Your task to perform on an android device: clear history in the chrome app Image 0: 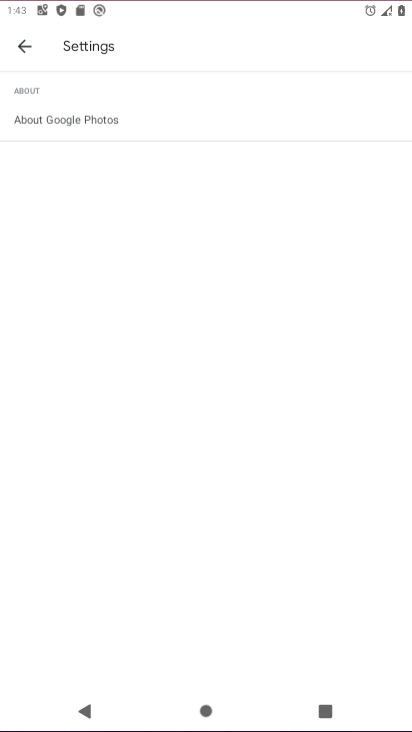
Step 0: drag from (246, 544) to (268, 323)
Your task to perform on an android device: clear history in the chrome app Image 1: 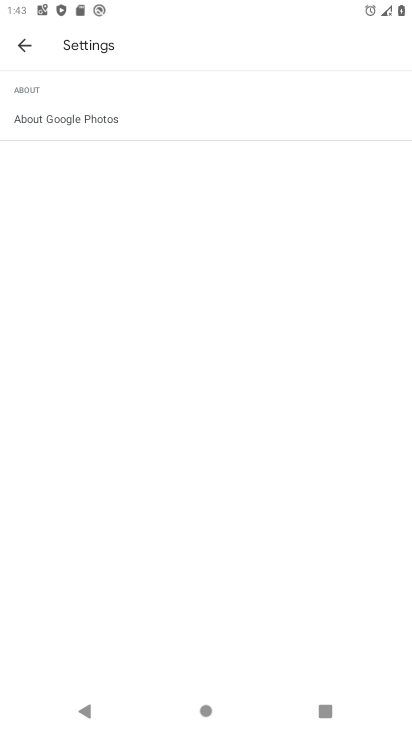
Step 1: press home button
Your task to perform on an android device: clear history in the chrome app Image 2: 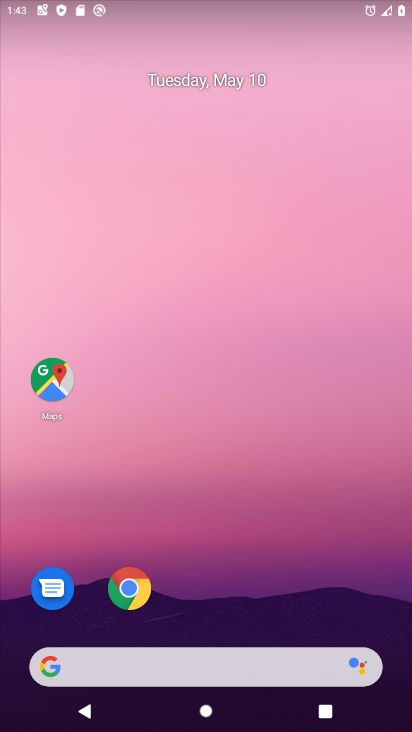
Step 2: drag from (189, 583) to (217, 313)
Your task to perform on an android device: clear history in the chrome app Image 3: 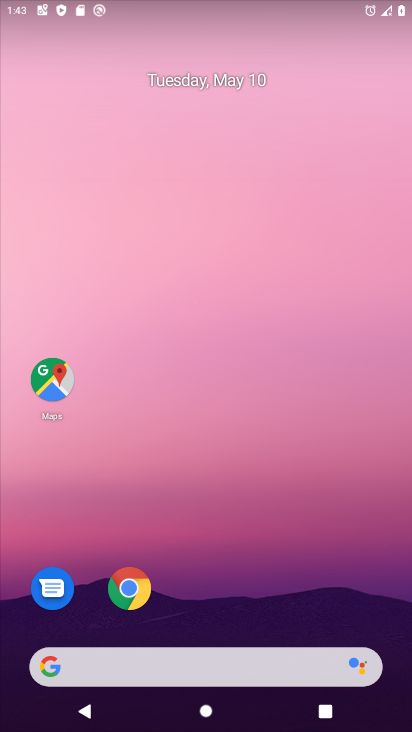
Step 3: drag from (266, 587) to (197, 248)
Your task to perform on an android device: clear history in the chrome app Image 4: 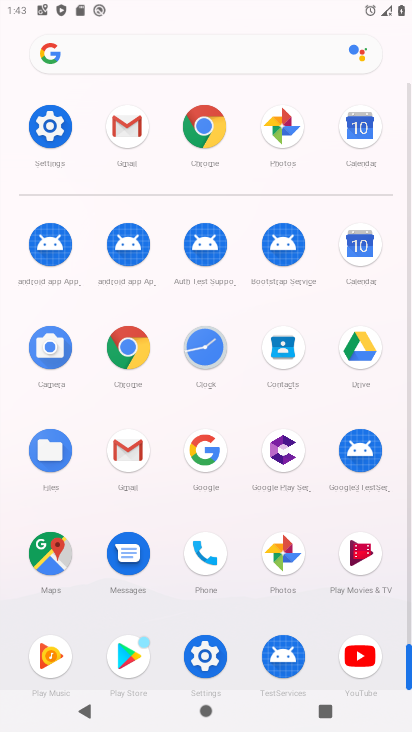
Step 4: click (213, 128)
Your task to perform on an android device: clear history in the chrome app Image 5: 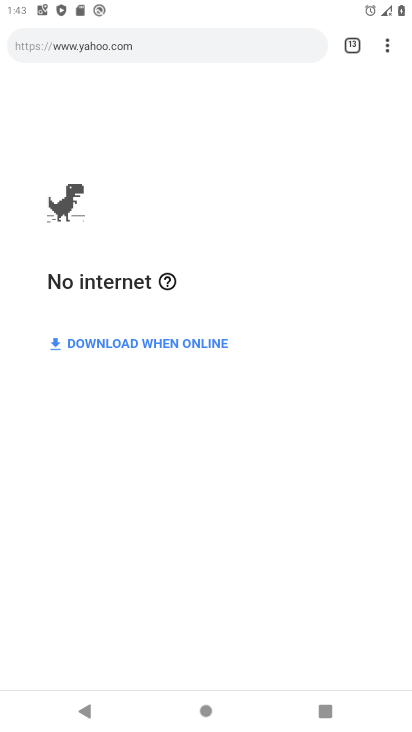
Step 5: click (380, 40)
Your task to perform on an android device: clear history in the chrome app Image 6: 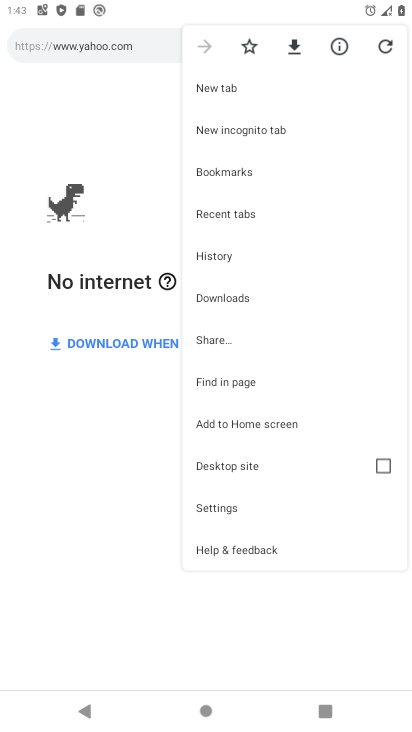
Step 6: click (239, 508)
Your task to perform on an android device: clear history in the chrome app Image 7: 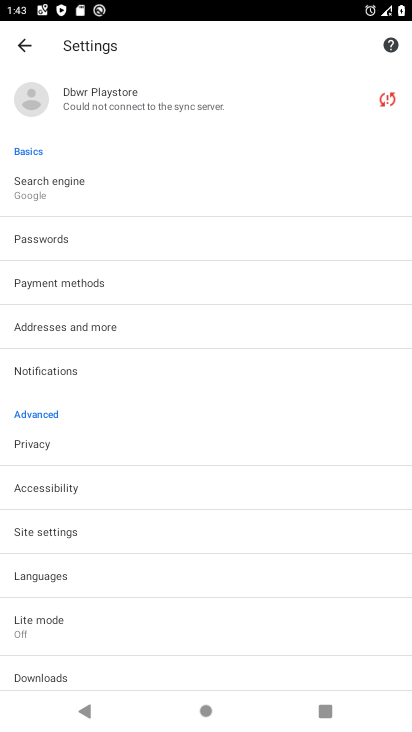
Step 7: click (28, 34)
Your task to perform on an android device: clear history in the chrome app Image 8: 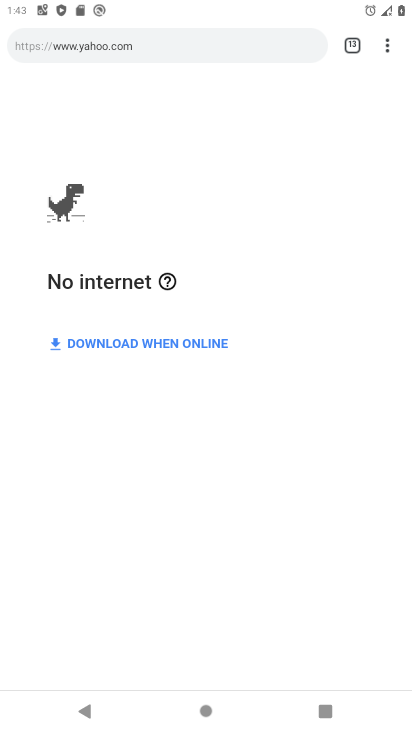
Step 8: click (28, 34)
Your task to perform on an android device: clear history in the chrome app Image 9: 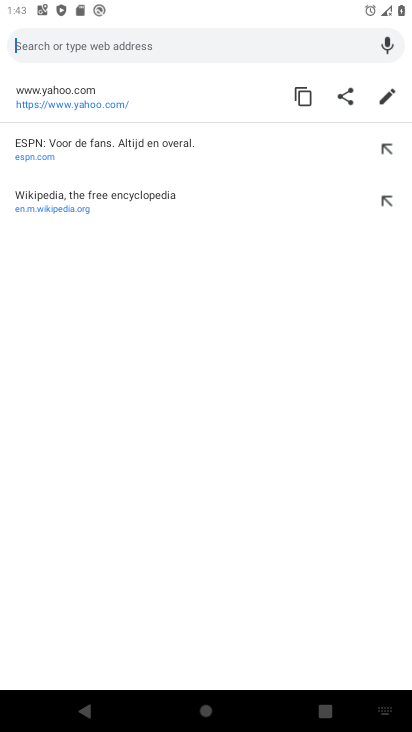
Step 9: press home button
Your task to perform on an android device: clear history in the chrome app Image 10: 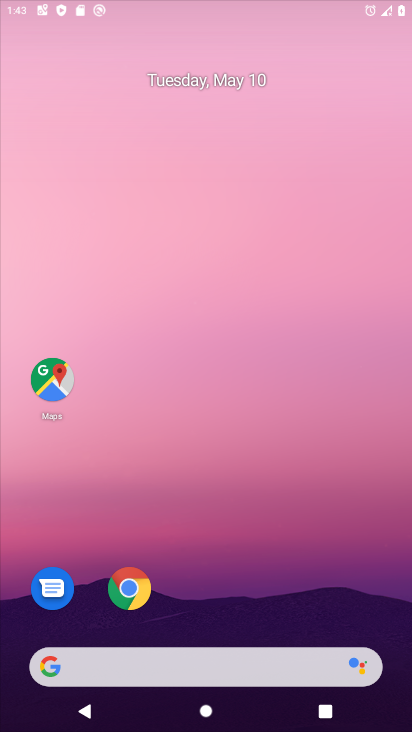
Step 10: drag from (240, 640) to (280, 344)
Your task to perform on an android device: clear history in the chrome app Image 11: 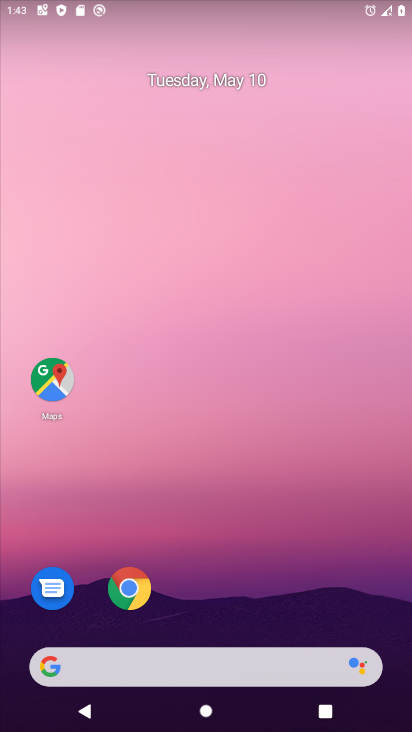
Step 11: click (129, 590)
Your task to perform on an android device: clear history in the chrome app Image 12: 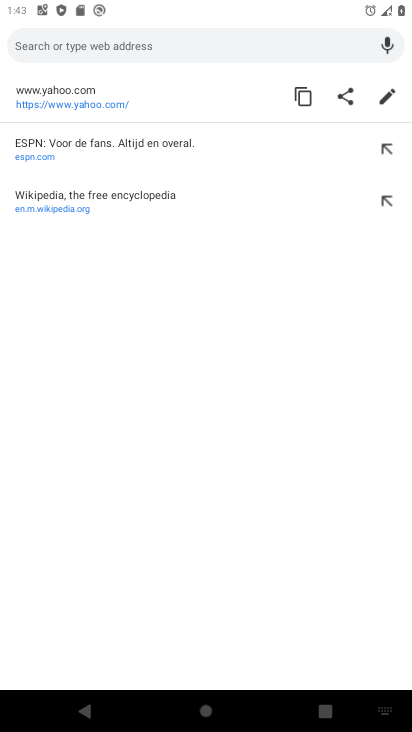
Step 12: press home button
Your task to perform on an android device: clear history in the chrome app Image 13: 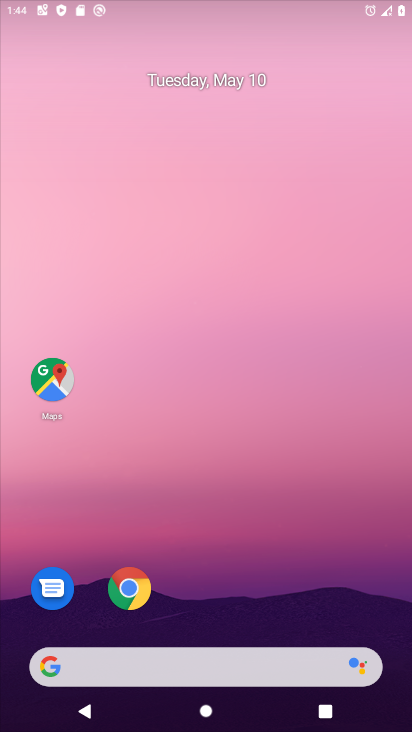
Step 13: drag from (255, 620) to (287, 230)
Your task to perform on an android device: clear history in the chrome app Image 14: 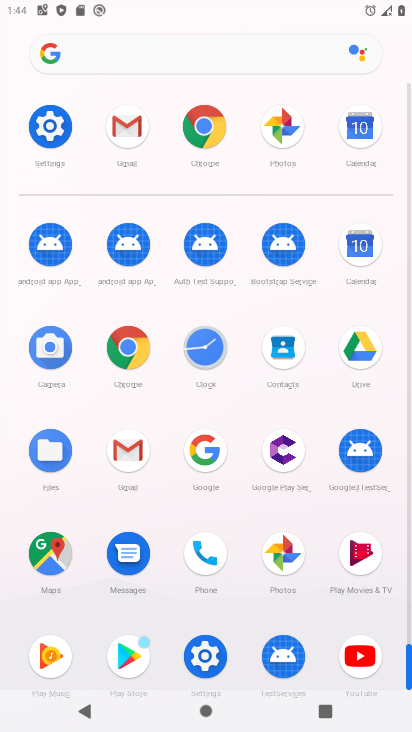
Step 14: click (126, 344)
Your task to perform on an android device: clear history in the chrome app Image 15: 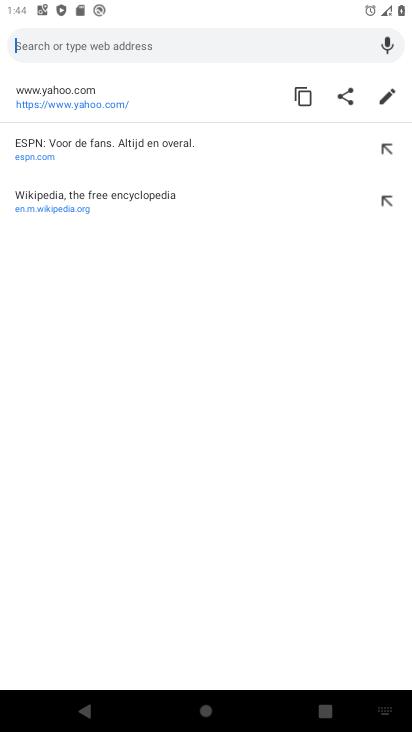
Step 15: click (126, 98)
Your task to perform on an android device: clear history in the chrome app Image 16: 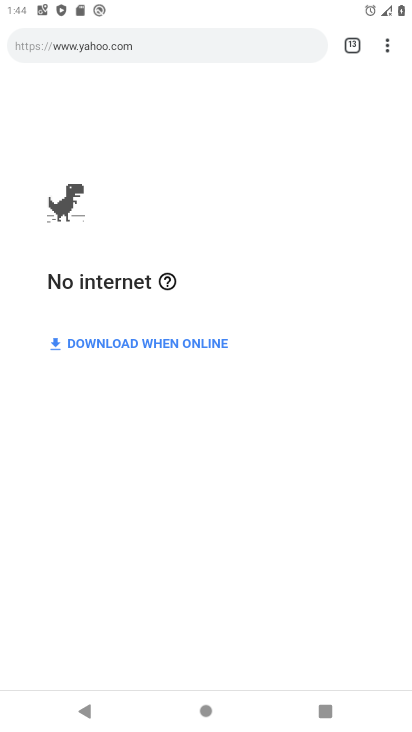
Step 16: click (385, 41)
Your task to perform on an android device: clear history in the chrome app Image 17: 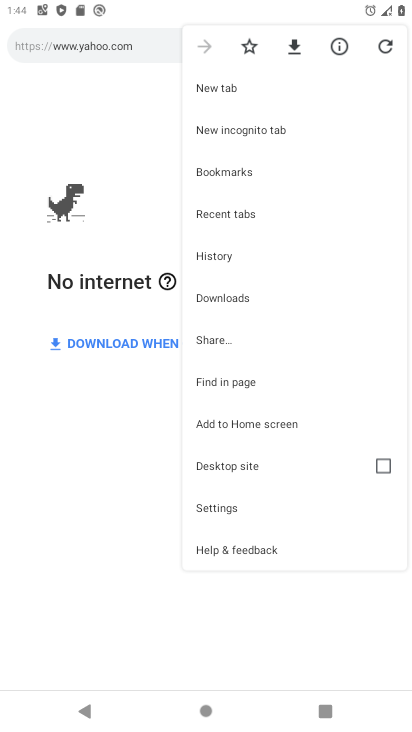
Step 17: click (224, 79)
Your task to perform on an android device: clear history in the chrome app Image 18: 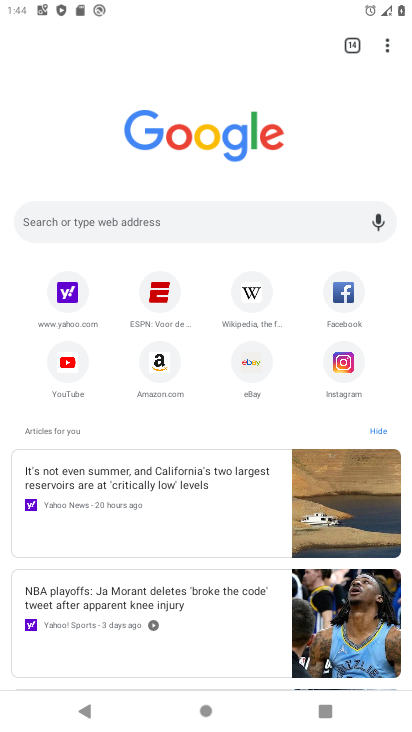
Step 18: click (384, 43)
Your task to perform on an android device: clear history in the chrome app Image 19: 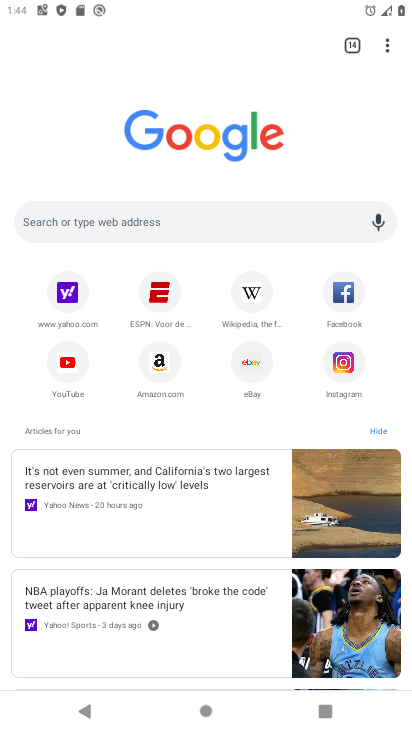
Step 19: click (384, 49)
Your task to perform on an android device: clear history in the chrome app Image 20: 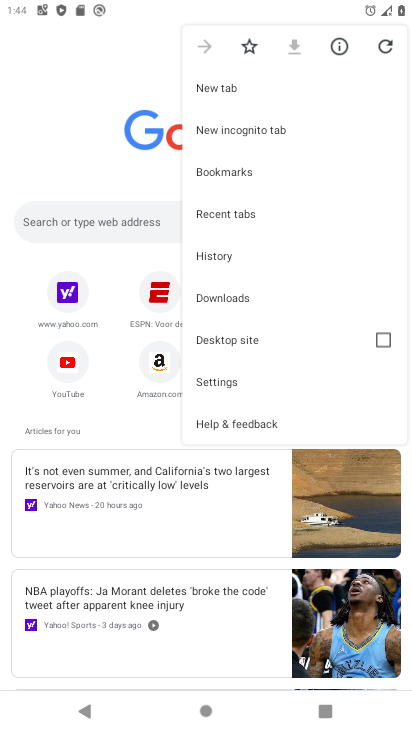
Step 20: click (239, 251)
Your task to perform on an android device: clear history in the chrome app Image 21: 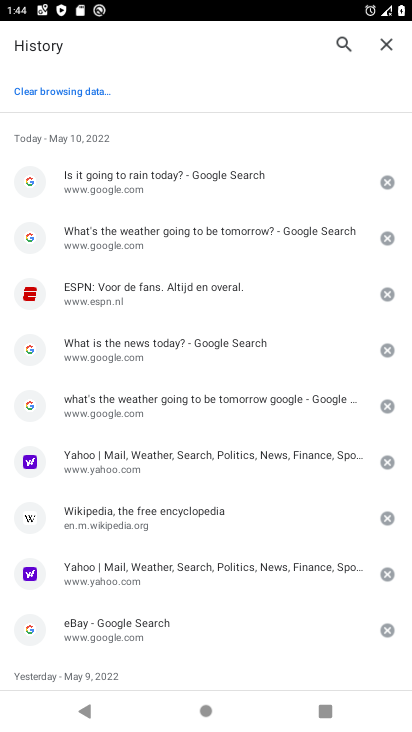
Step 21: click (66, 88)
Your task to perform on an android device: clear history in the chrome app Image 22: 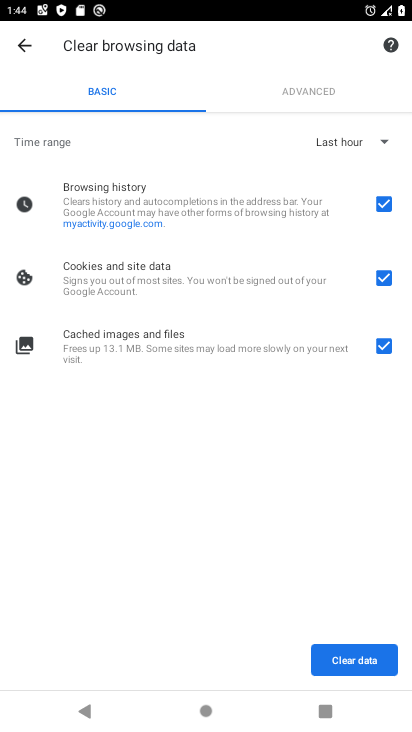
Step 22: click (358, 670)
Your task to perform on an android device: clear history in the chrome app Image 23: 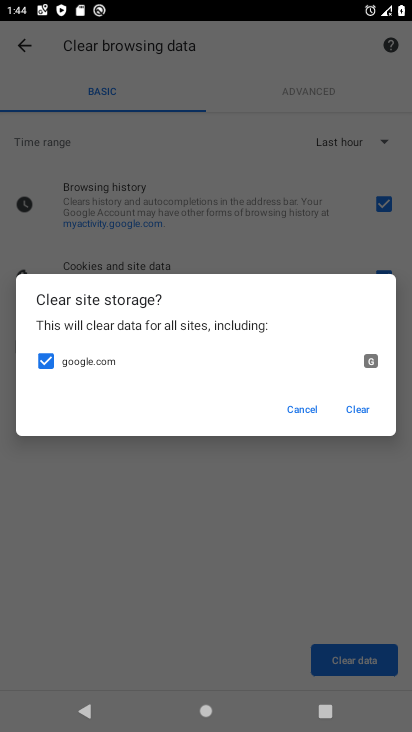
Step 23: click (359, 404)
Your task to perform on an android device: clear history in the chrome app Image 24: 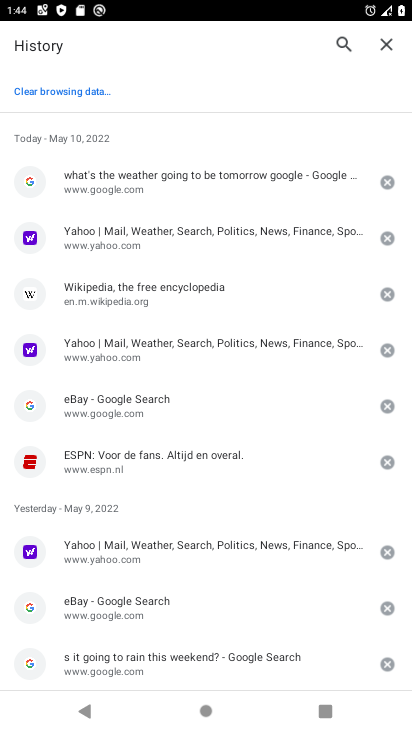
Step 24: click (81, 88)
Your task to perform on an android device: clear history in the chrome app Image 25: 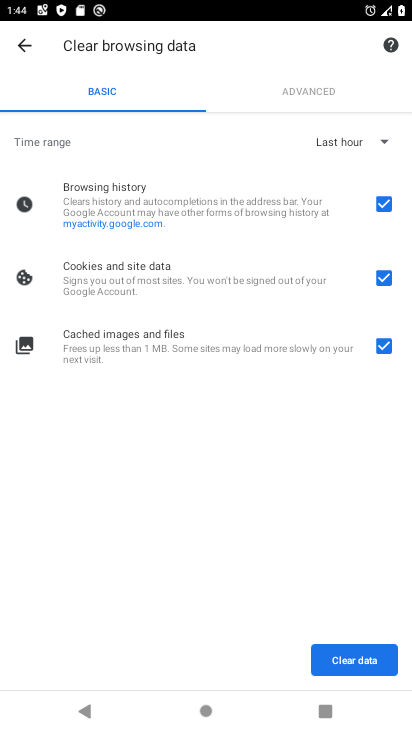
Step 25: click (383, 137)
Your task to perform on an android device: clear history in the chrome app Image 26: 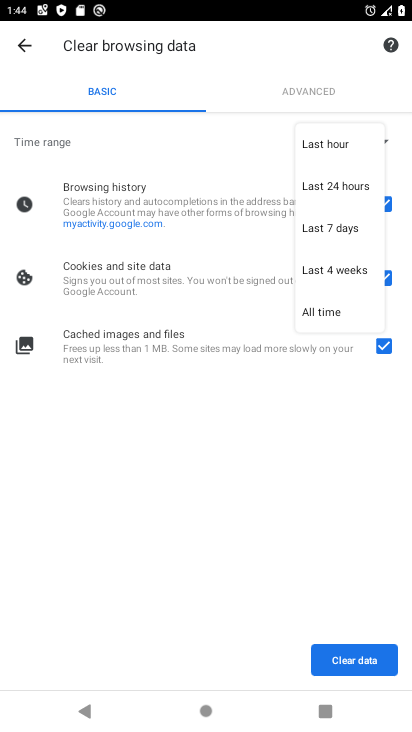
Step 26: click (327, 187)
Your task to perform on an android device: clear history in the chrome app Image 27: 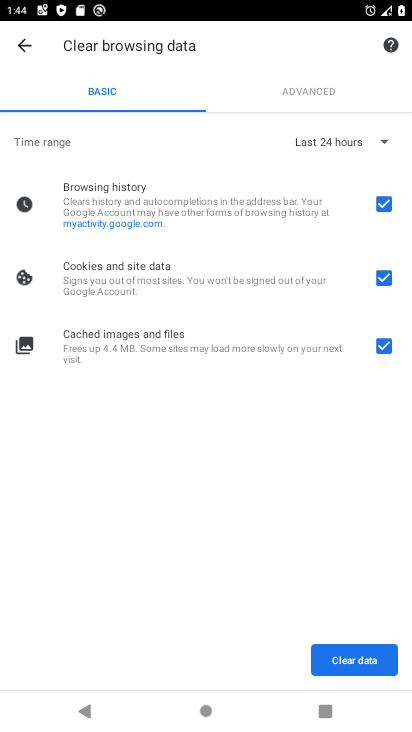
Step 27: click (347, 664)
Your task to perform on an android device: clear history in the chrome app Image 28: 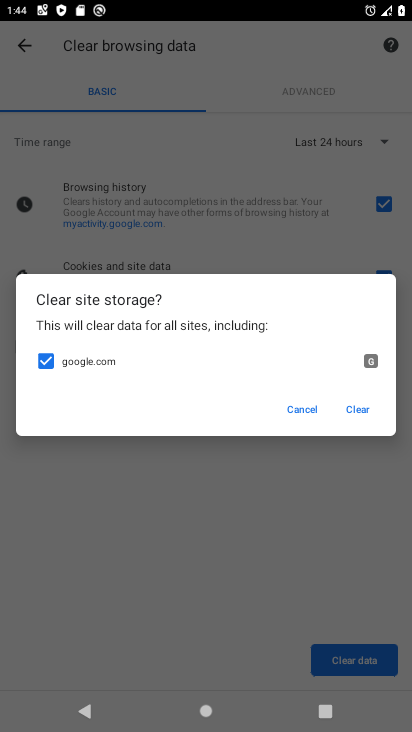
Step 28: click (378, 397)
Your task to perform on an android device: clear history in the chrome app Image 29: 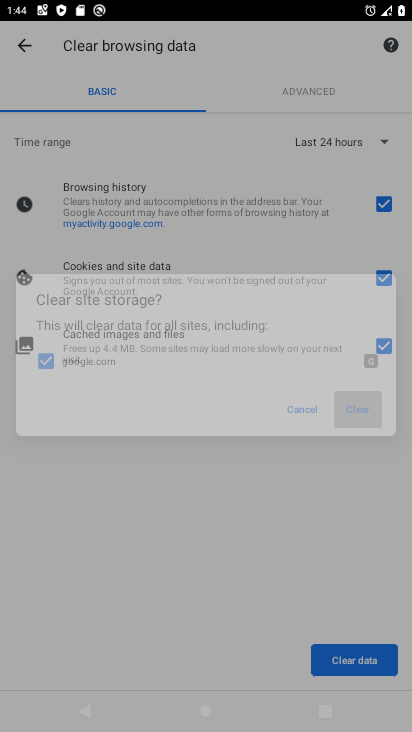
Step 29: click (367, 402)
Your task to perform on an android device: clear history in the chrome app Image 30: 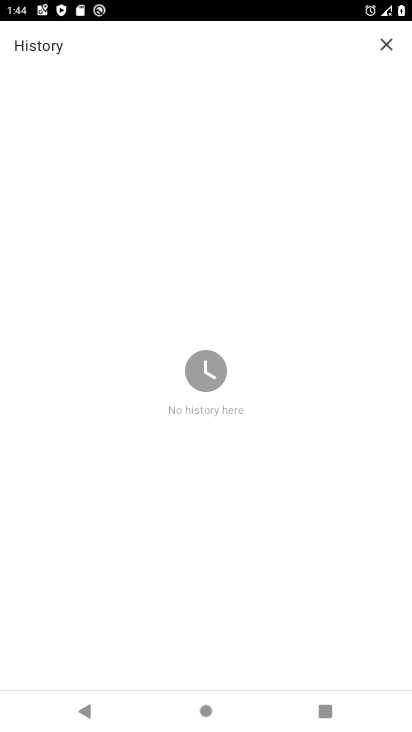
Step 30: task complete